Your task to perform on an android device: open the mobile data screen to see how much data has been used Image 0: 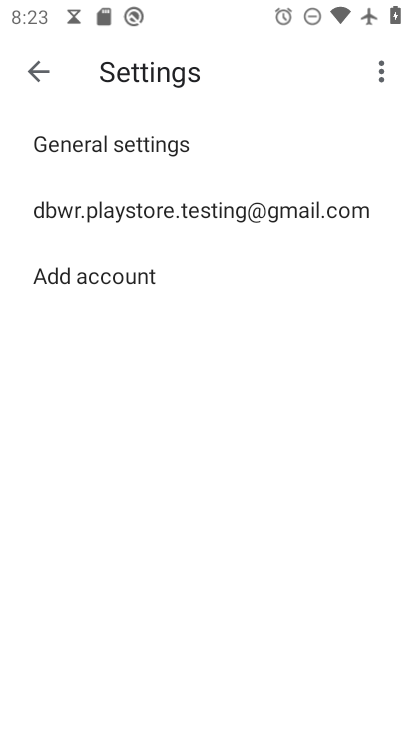
Step 0: press home button
Your task to perform on an android device: open the mobile data screen to see how much data has been used Image 1: 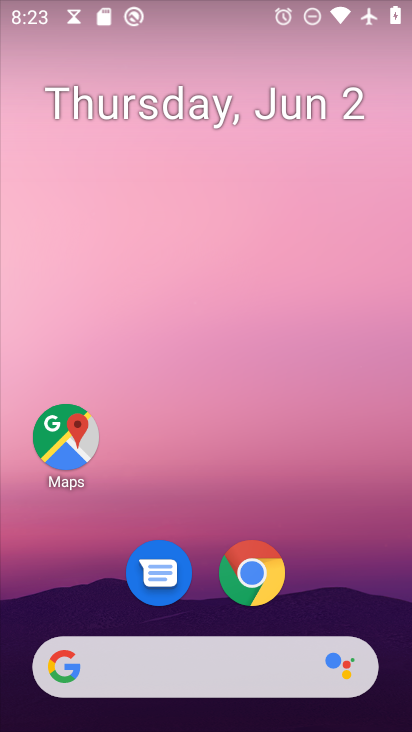
Step 1: drag from (180, 667) to (363, 96)
Your task to perform on an android device: open the mobile data screen to see how much data has been used Image 2: 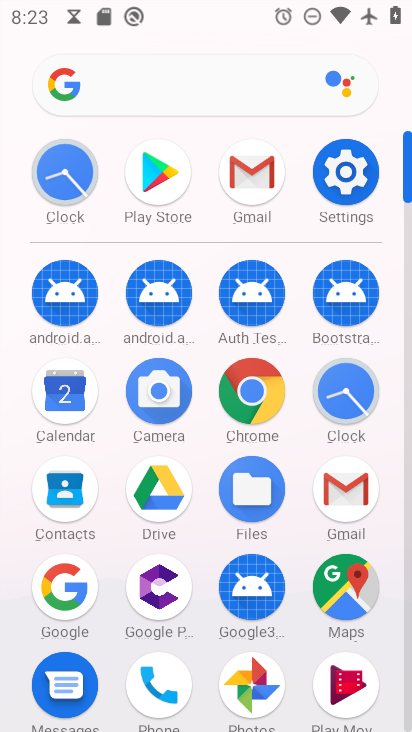
Step 2: click (355, 178)
Your task to perform on an android device: open the mobile data screen to see how much data has been used Image 3: 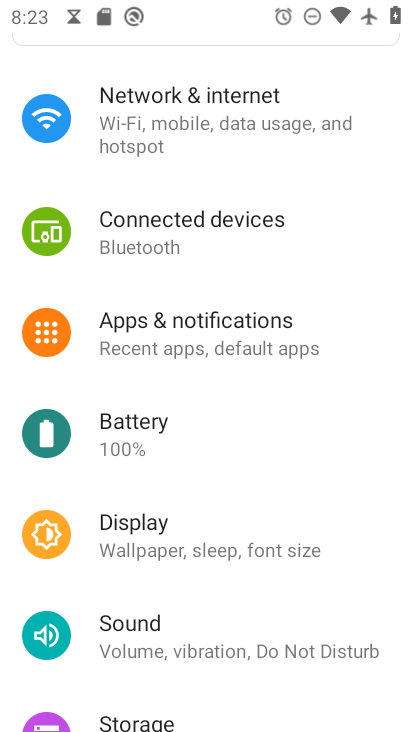
Step 3: click (238, 118)
Your task to perform on an android device: open the mobile data screen to see how much data has been used Image 4: 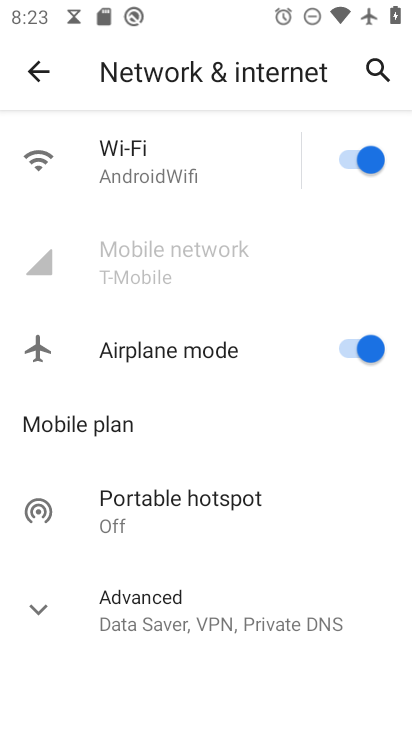
Step 4: task complete